Your task to perform on an android device: turn on priority inbox in the gmail app Image 0: 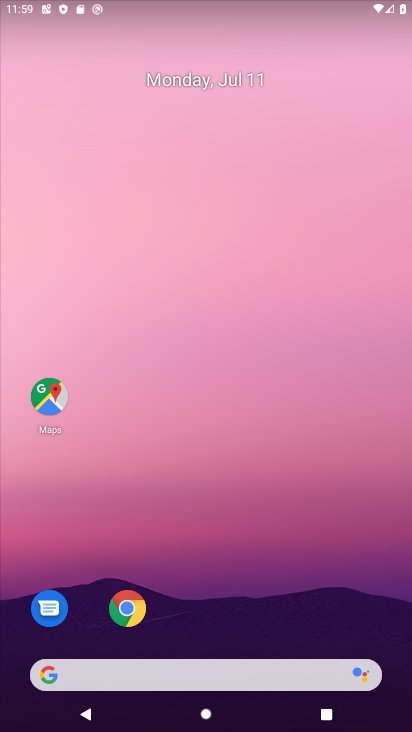
Step 0: drag from (192, 627) to (204, 146)
Your task to perform on an android device: turn on priority inbox in the gmail app Image 1: 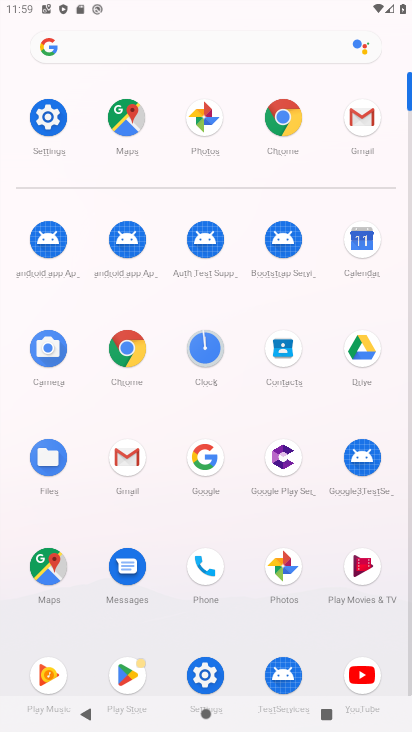
Step 1: click (373, 109)
Your task to perform on an android device: turn on priority inbox in the gmail app Image 2: 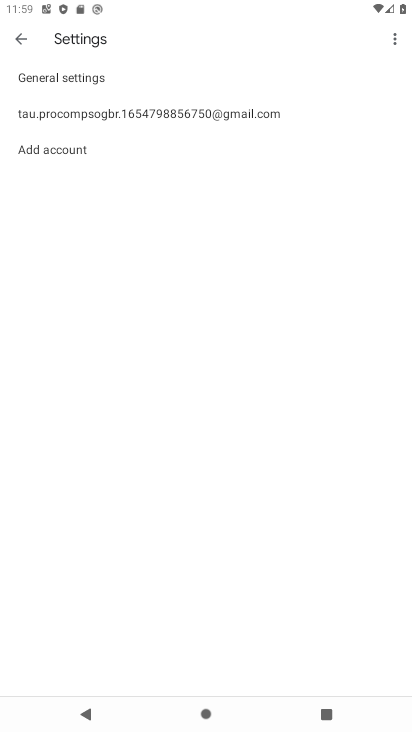
Step 2: click (11, 43)
Your task to perform on an android device: turn on priority inbox in the gmail app Image 3: 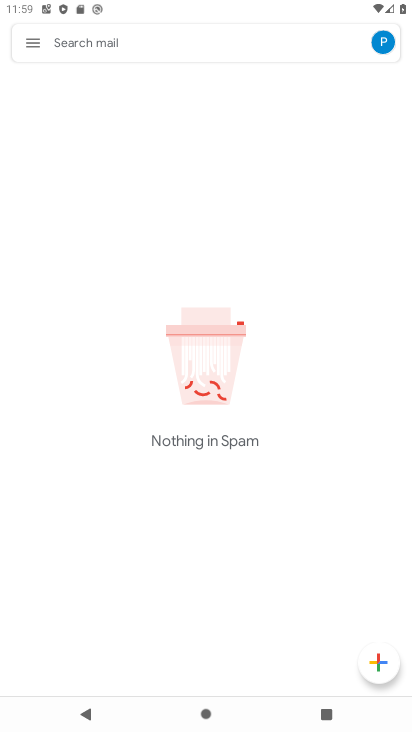
Step 3: click (29, 37)
Your task to perform on an android device: turn on priority inbox in the gmail app Image 4: 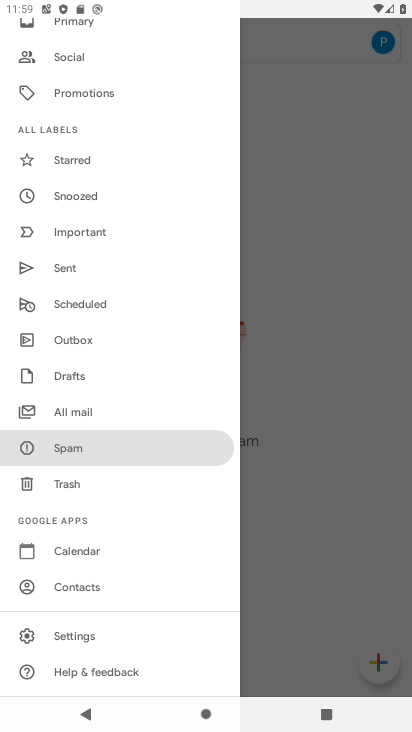
Step 4: drag from (178, 88) to (163, 467)
Your task to perform on an android device: turn on priority inbox in the gmail app Image 5: 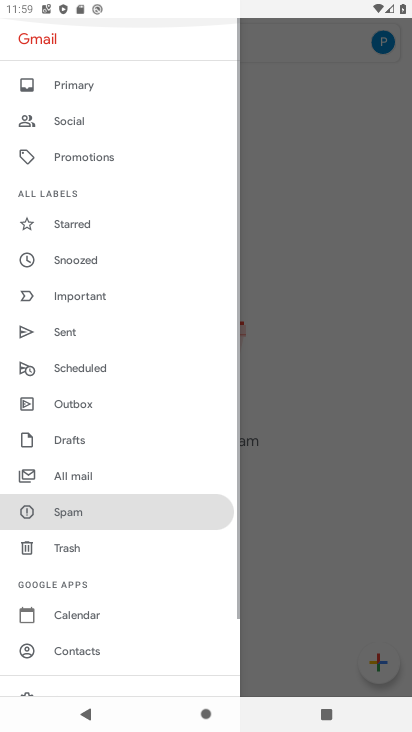
Step 5: click (163, 467)
Your task to perform on an android device: turn on priority inbox in the gmail app Image 6: 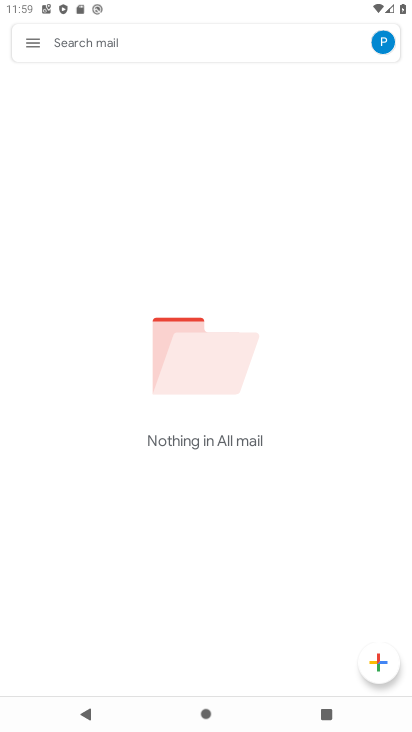
Step 6: click (26, 46)
Your task to perform on an android device: turn on priority inbox in the gmail app Image 7: 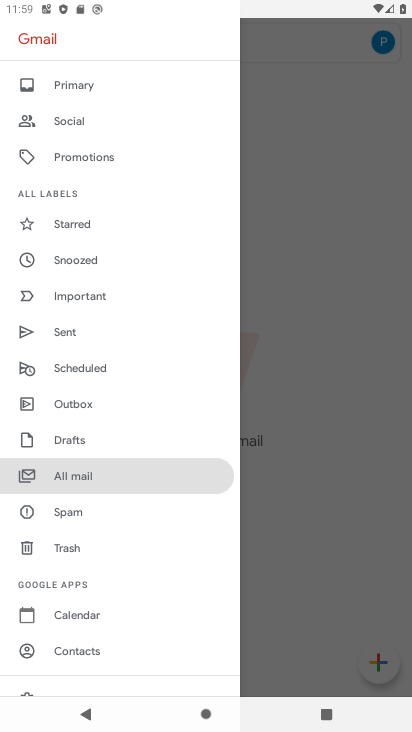
Step 7: drag from (87, 633) to (149, 238)
Your task to perform on an android device: turn on priority inbox in the gmail app Image 8: 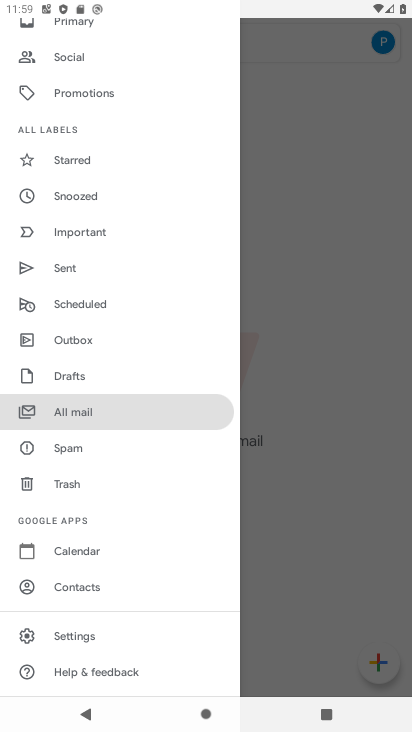
Step 8: click (152, 638)
Your task to perform on an android device: turn on priority inbox in the gmail app Image 9: 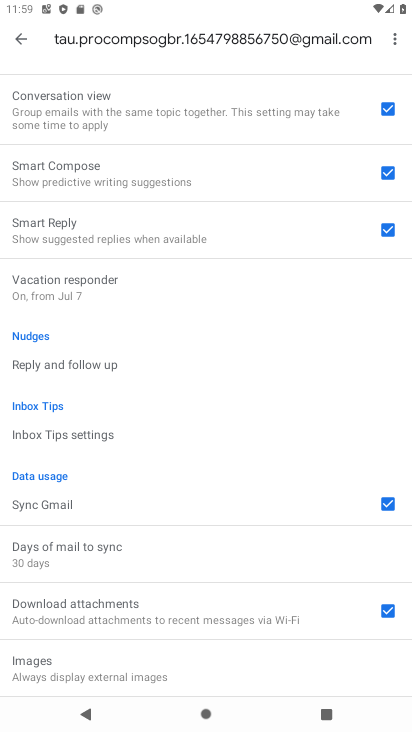
Step 9: drag from (155, 209) to (160, 596)
Your task to perform on an android device: turn on priority inbox in the gmail app Image 10: 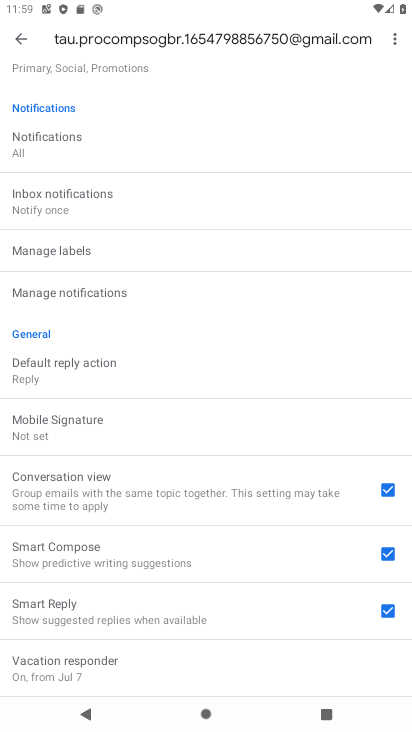
Step 10: drag from (173, 123) to (178, 576)
Your task to perform on an android device: turn on priority inbox in the gmail app Image 11: 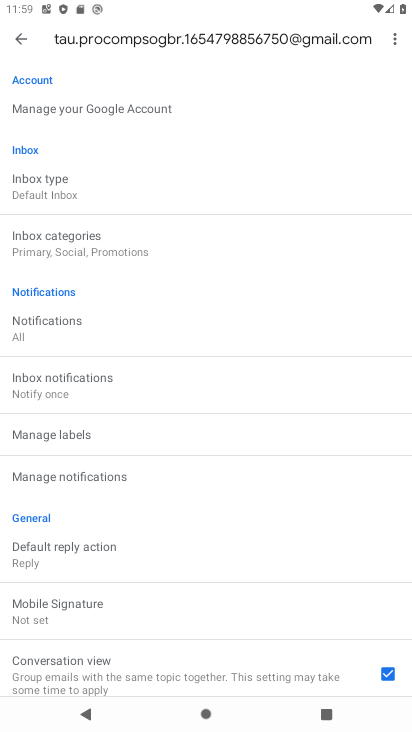
Step 11: click (137, 196)
Your task to perform on an android device: turn on priority inbox in the gmail app Image 12: 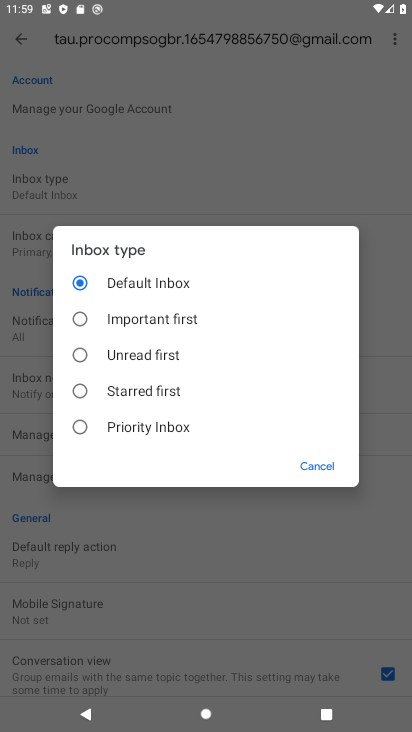
Step 12: click (185, 425)
Your task to perform on an android device: turn on priority inbox in the gmail app Image 13: 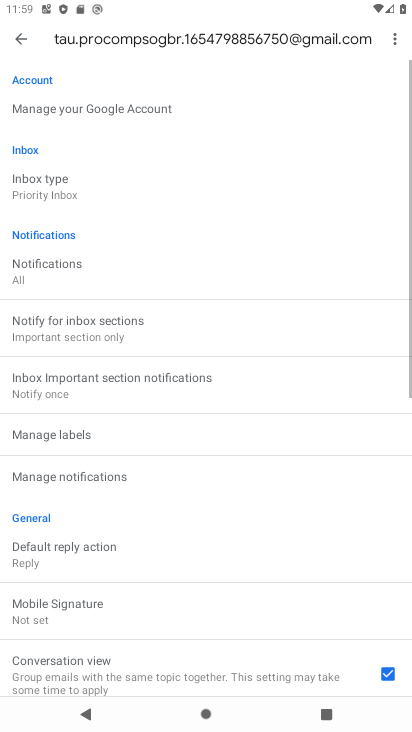
Step 13: task complete